Your task to perform on an android device: Open wifi settings Image 0: 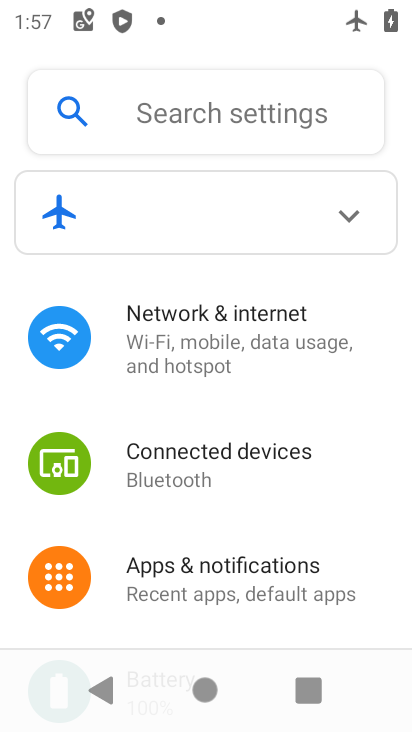
Step 0: press home button
Your task to perform on an android device: Open wifi settings Image 1: 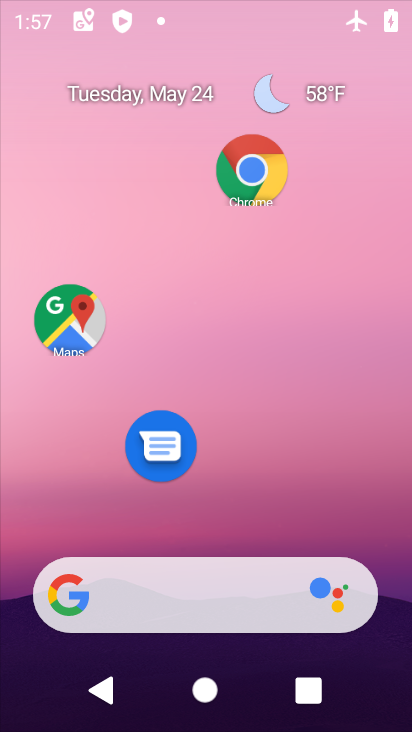
Step 1: drag from (208, 627) to (218, 138)
Your task to perform on an android device: Open wifi settings Image 2: 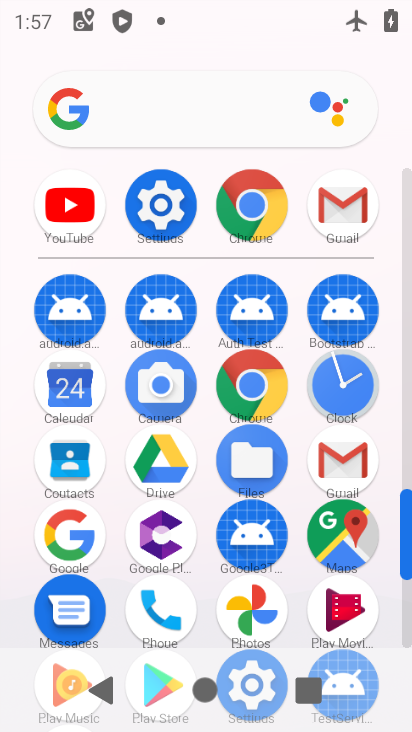
Step 2: click (167, 199)
Your task to perform on an android device: Open wifi settings Image 3: 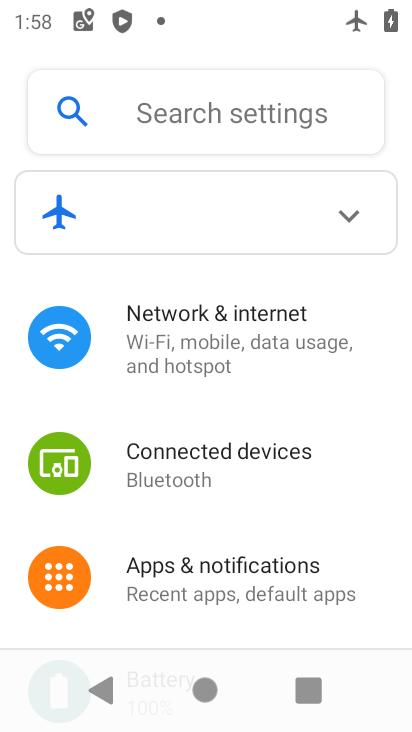
Step 3: click (252, 324)
Your task to perform on an android device: Open wifi settings Image 4: 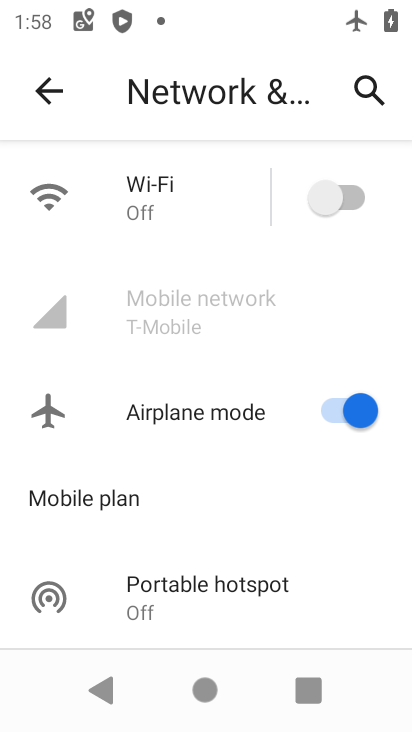
Step 4: click (193, 220)
Your task to perform on an android device: Open wifi settings Image 5: 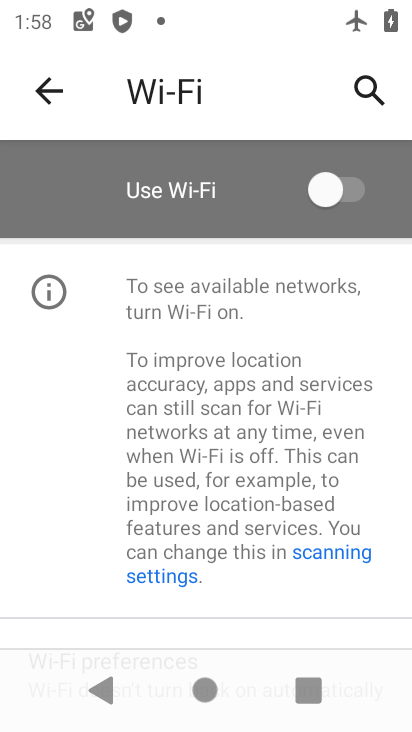
Step 5: task complete